Your task to perform on an android device: Clear the cart on costco.com. Add "logitech g910" to the cart on costco.com, then select checkout. Image 0: 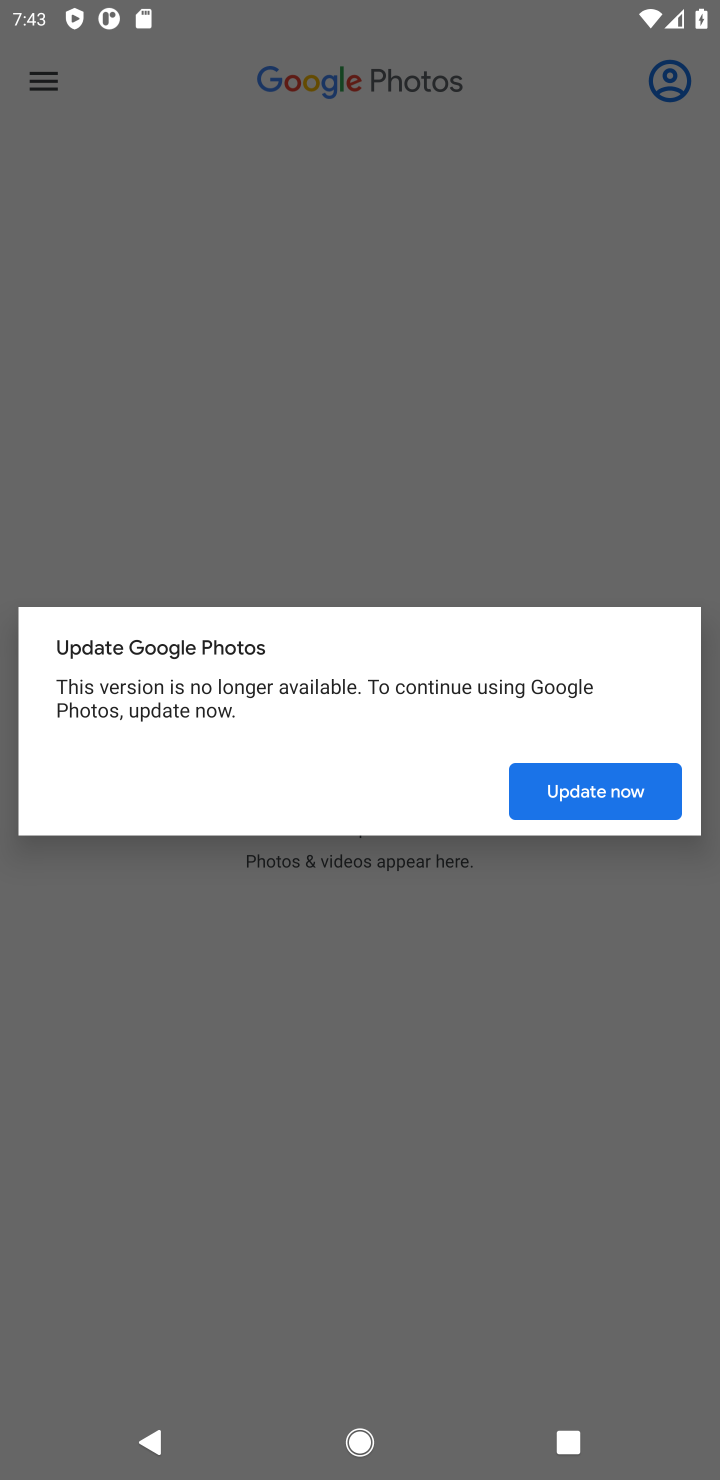
Step 0: press home button
Your task to perform on an android device: Clear the cart on costco.com. Add "logitech g910" to the cart on costco.com, then select checkout. Image 1: 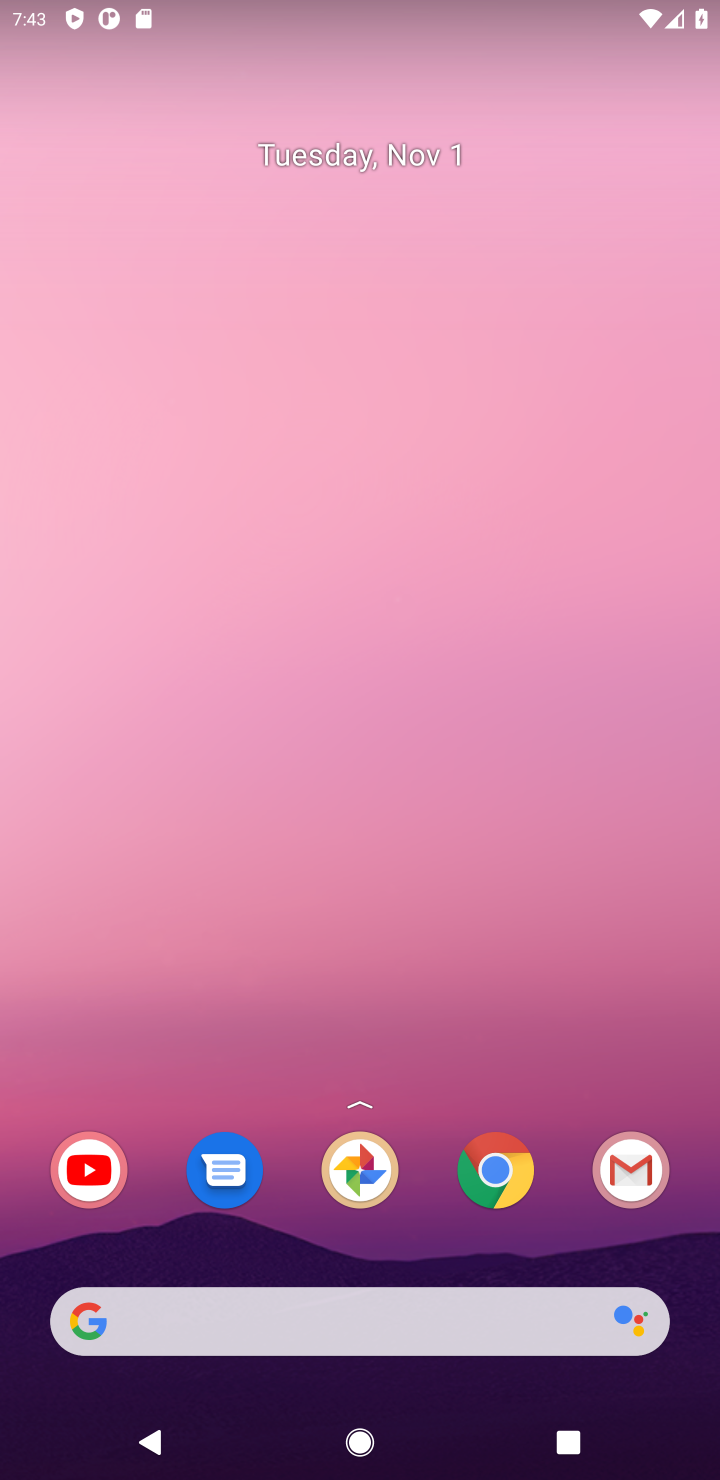
Step 1: click (509, 1174)
Your task to perform on an android device: Clear the cart on costco.com. Add "logitech g910" to the cart on costco.com, then select checkout. Image 2: 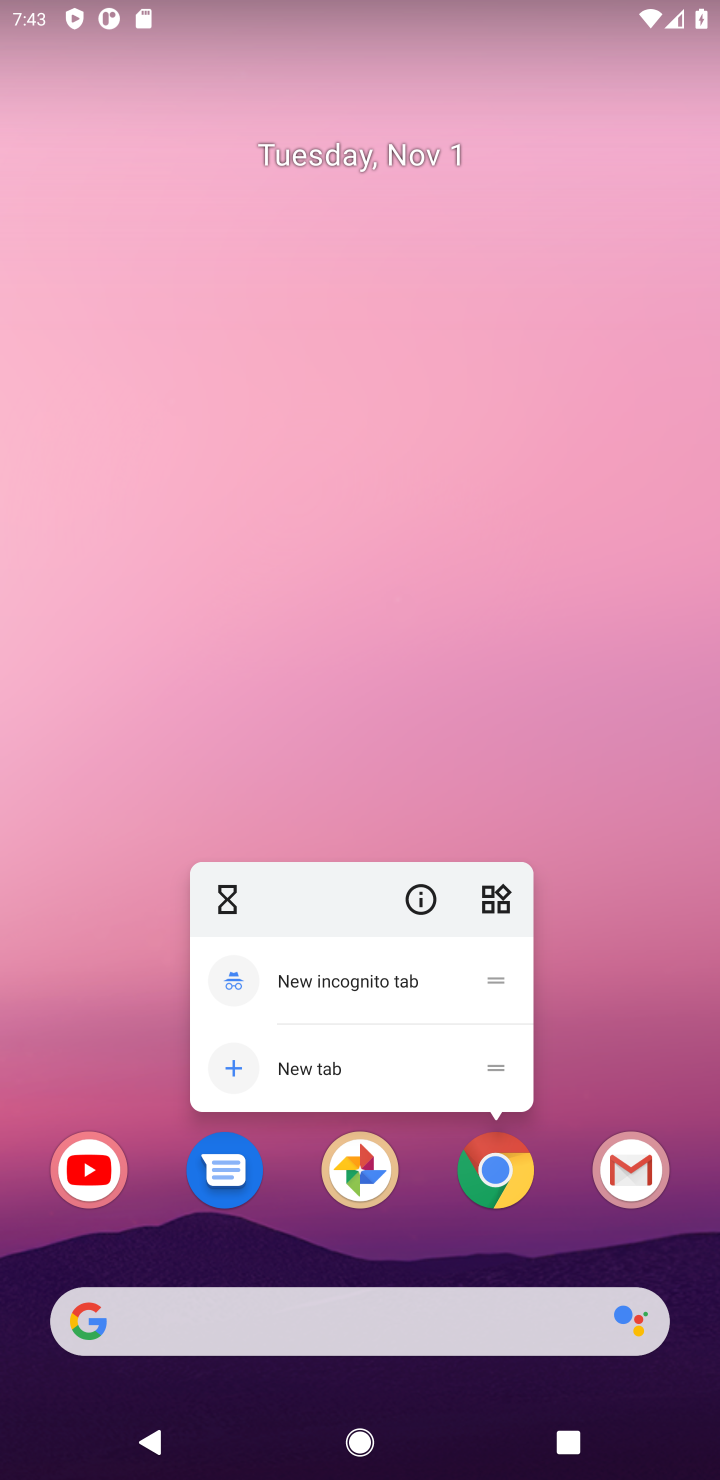
Step 2: click (490, 1191)
Your task to perform on an android device: Clear the cart on costco.com. Add "logitech g910" to the cart on costco.com, then select checkout. Image 3: 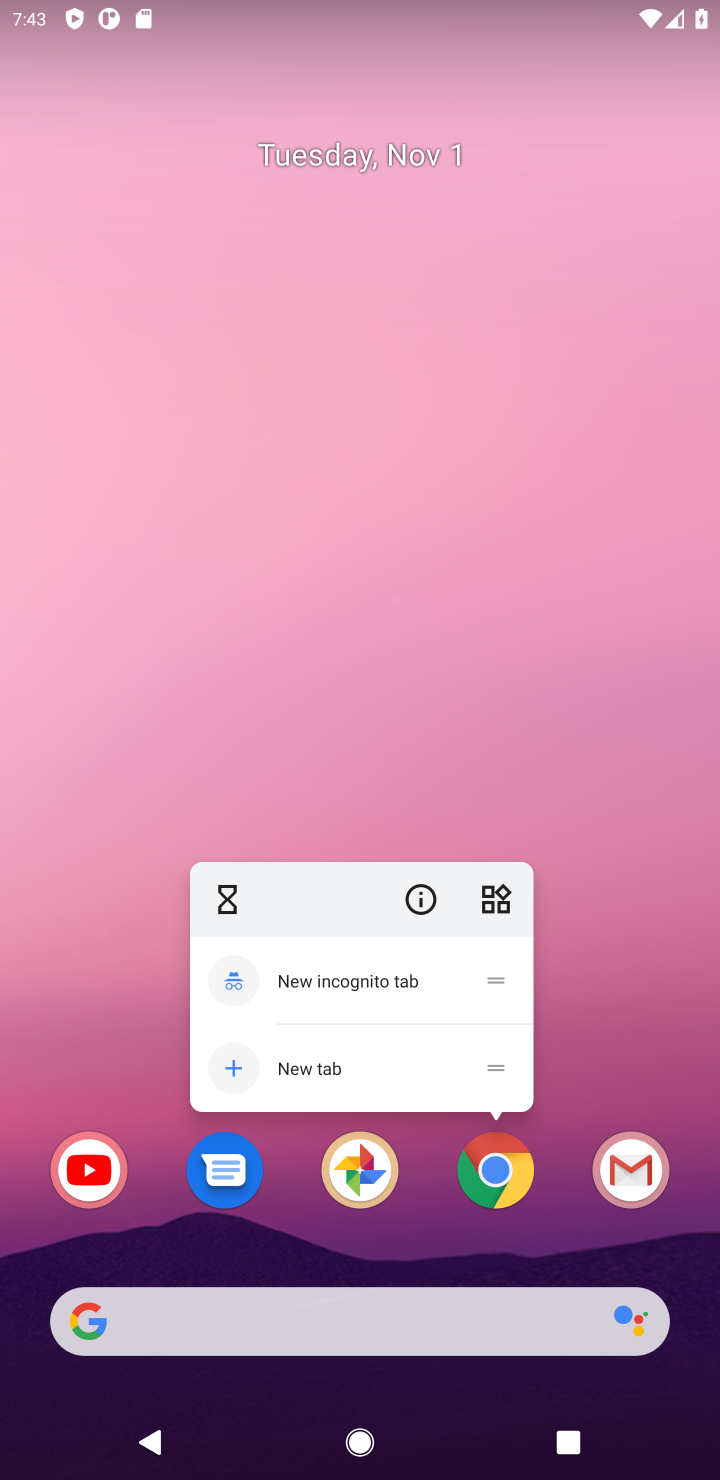
Step 3: click (509, 1178)
Your task to perform on an android device: Clear the cart on costco.com. Add "logitech g910" to the cart on costco.com, then select checkout. Image 4: 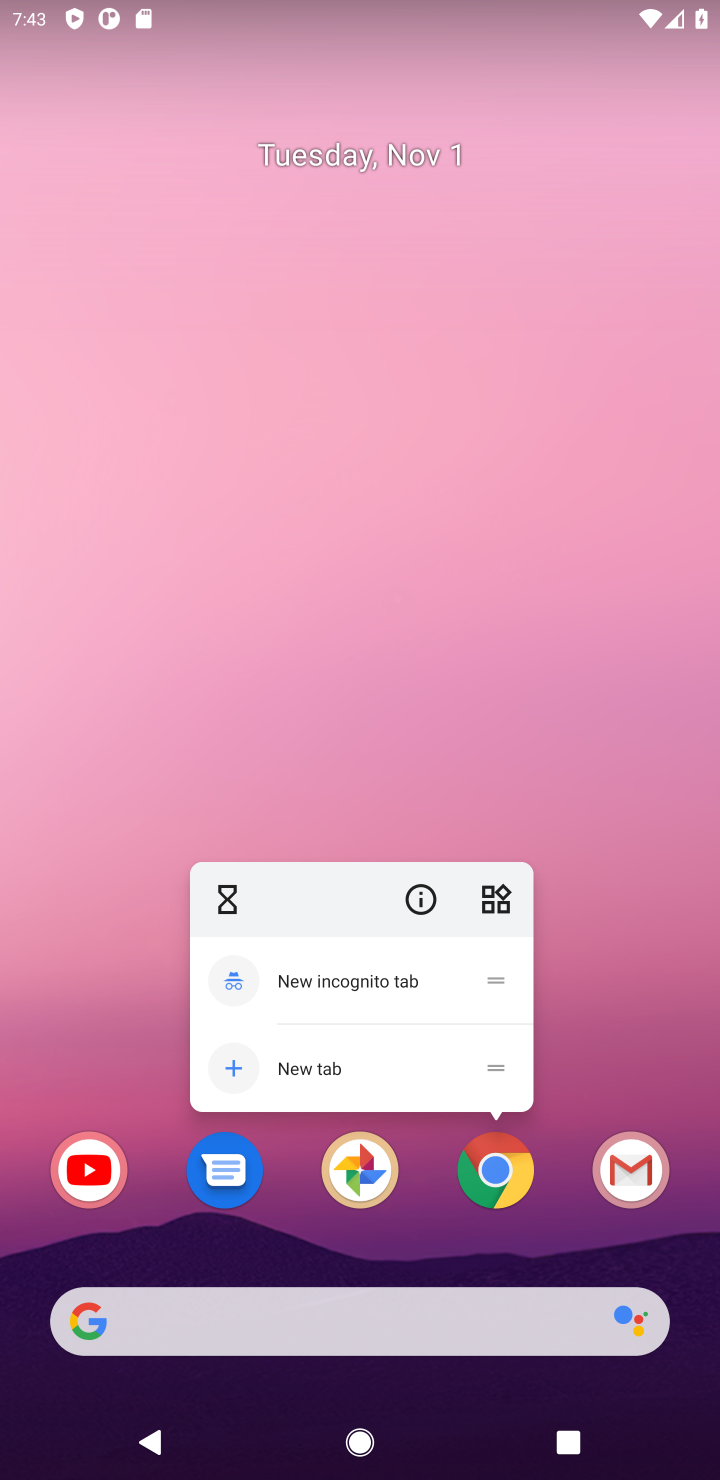
Step 4: click (513, 1155)
Your task to perform on an android device: Clear the cart on costco.com. Add "logitech g910" to the cart on costco.com, then select checkout. Image 5: 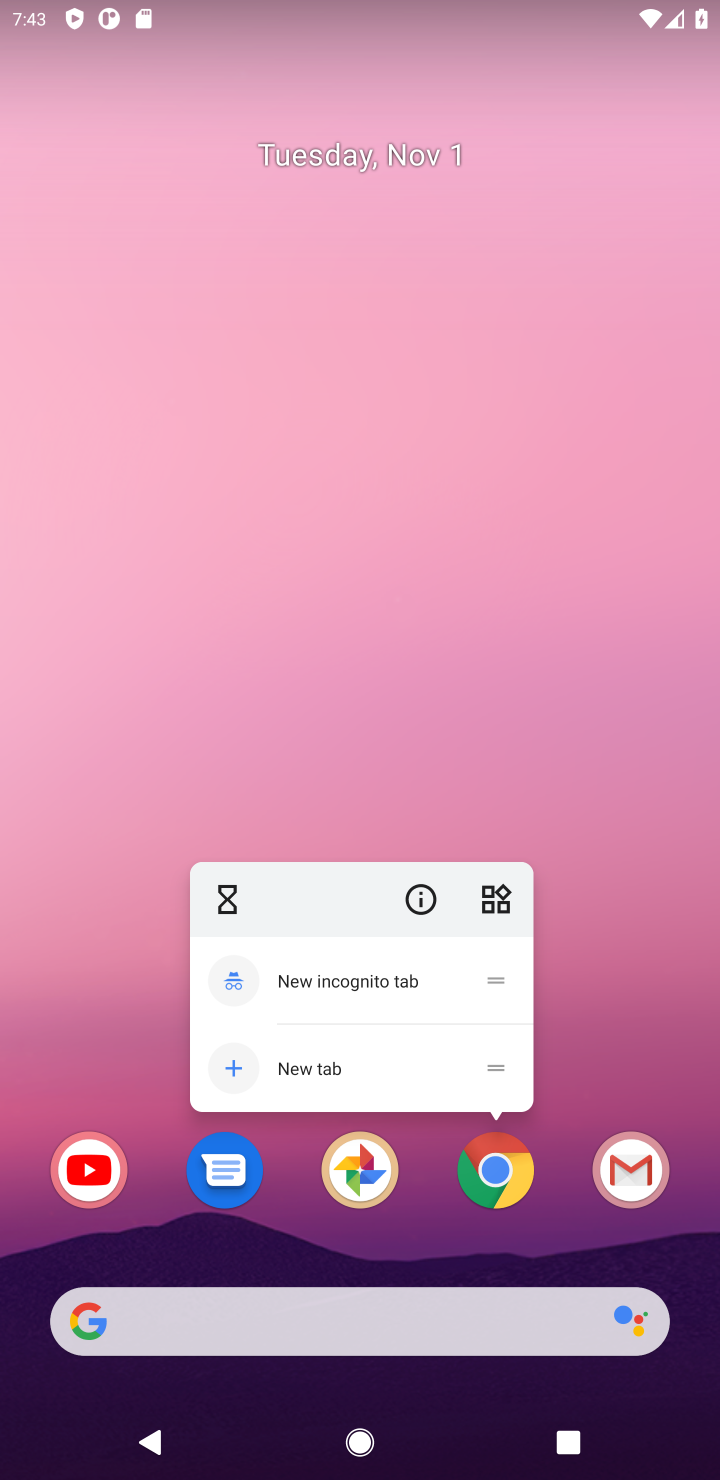
Step 5: click (503, 1207)
Your task to perform on an android device: Clear the cart on costco.com. Add "logitech g910" to the cart on costco.com, then select checkout. Image 6: 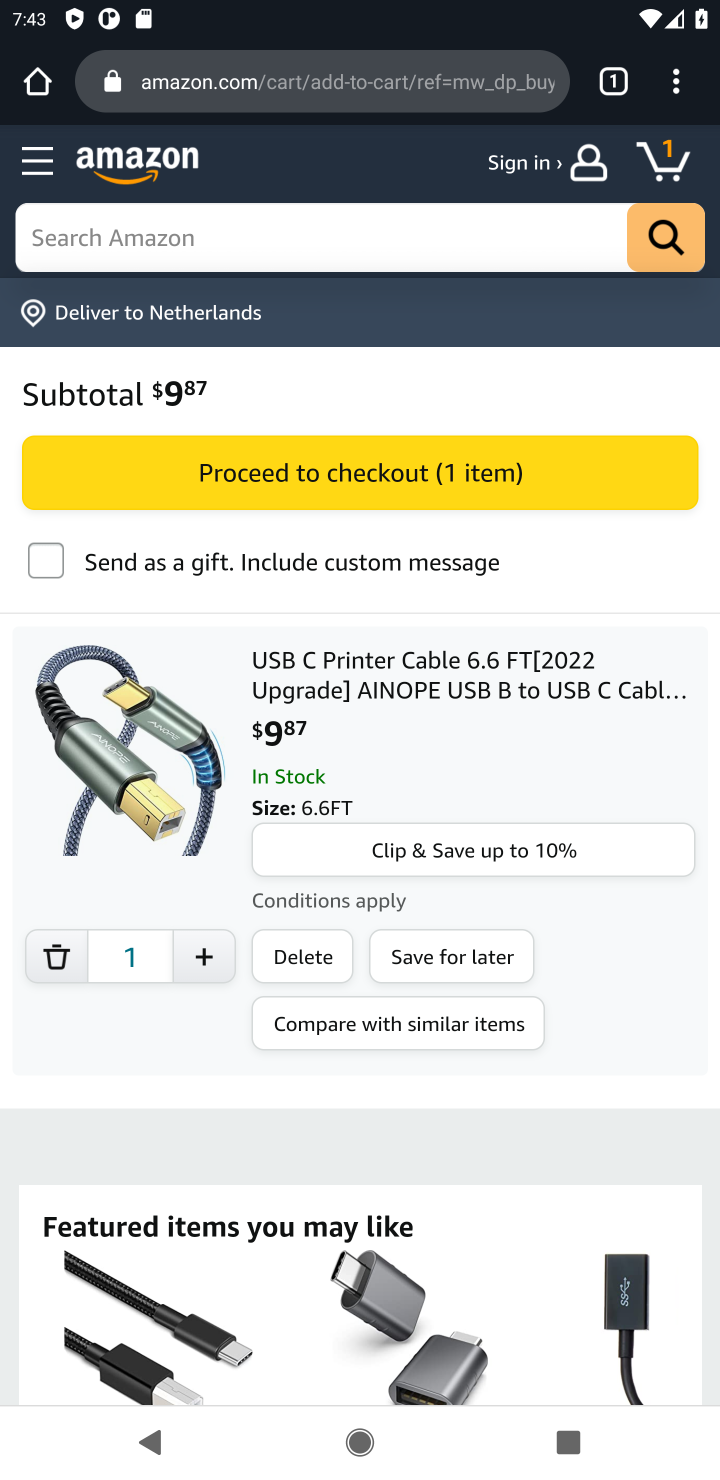
Step 6: click (452, 105)
Your task to perform on an android device: Clear the cart on costco.com. Add "logitech g910" to the cart on costco.com, then select checkout. Image 7: 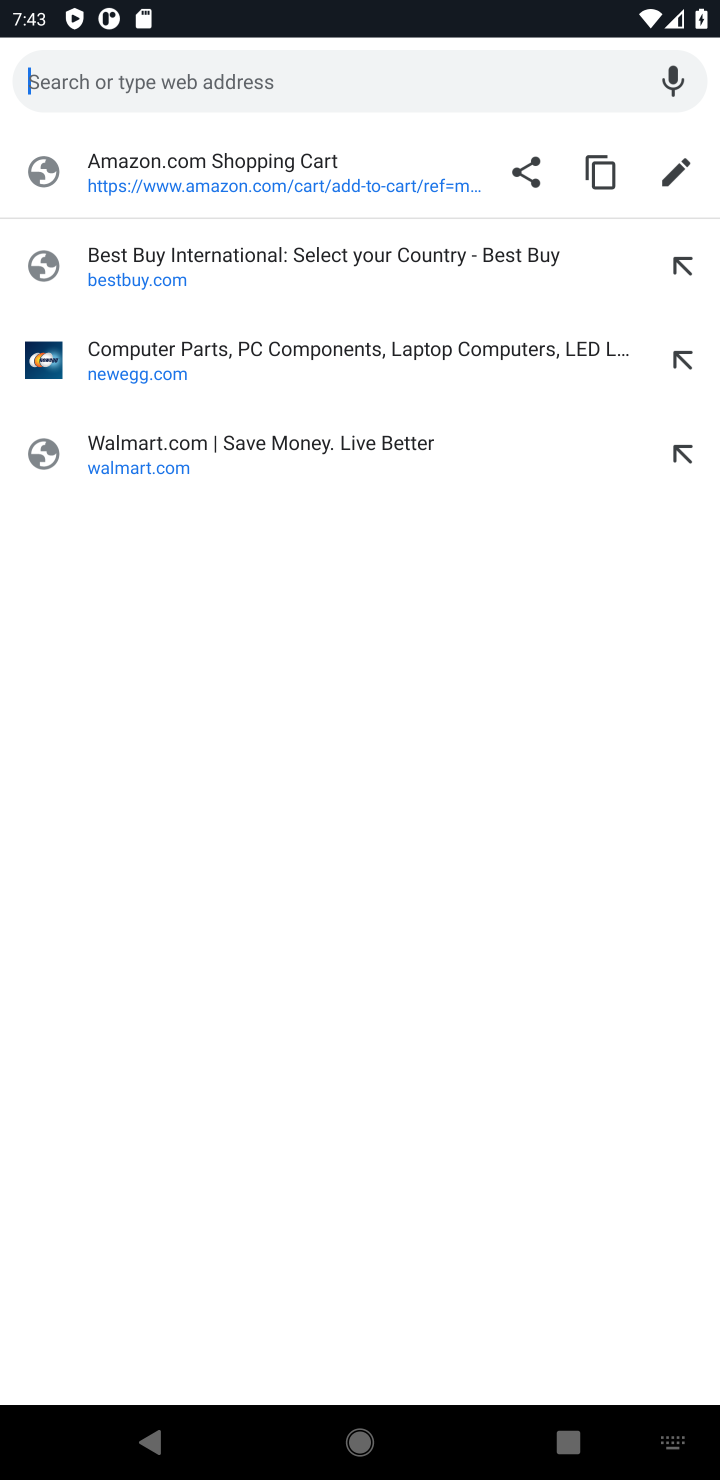
Step 7: type "costco.com"
Your task to perform on an android device: Clear the cart on costco.com. Add "logitech g910" to the cart on costco.com, then select checkout. Image 8: 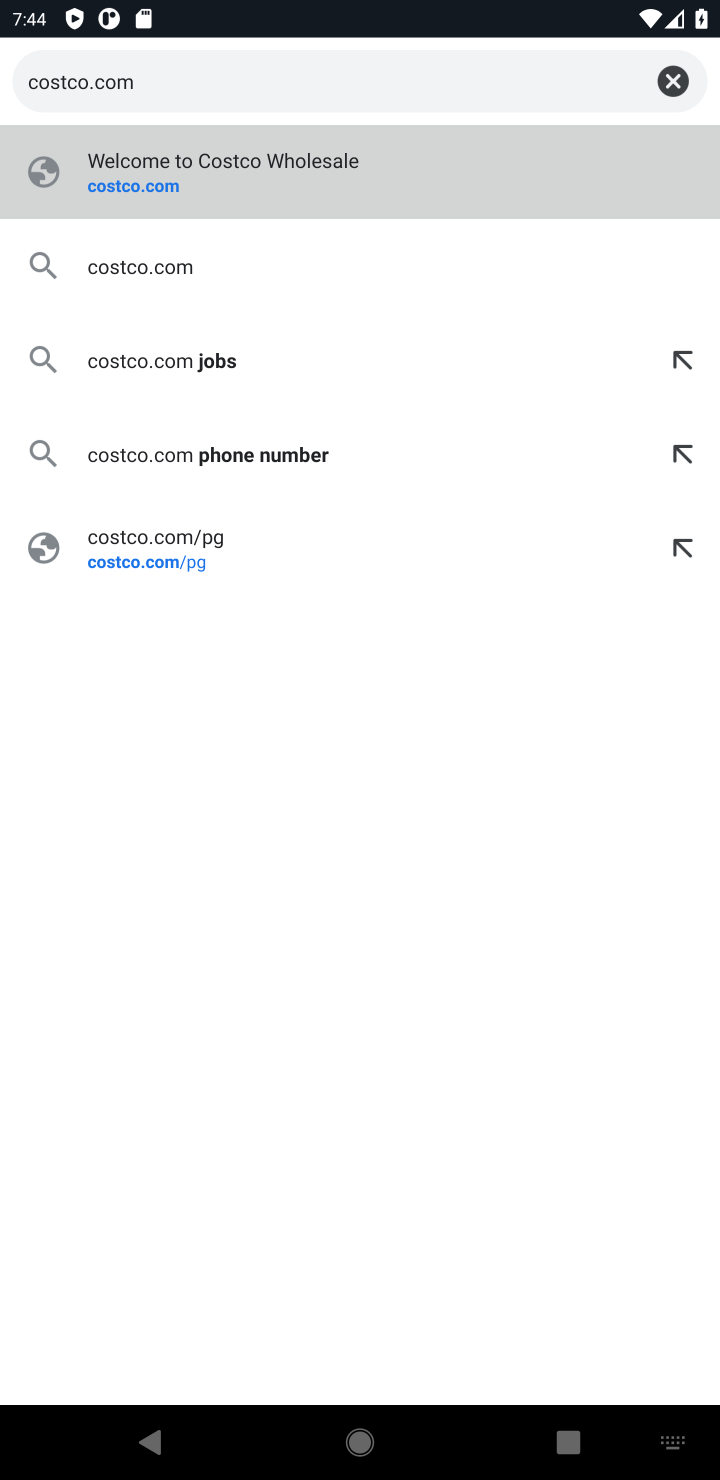
Step 8: press enter
Your task to perform on an android device: Clear the cart on costco.com. Add "logitech g910" to the cart on costco.com, then select checkout. Image 9: 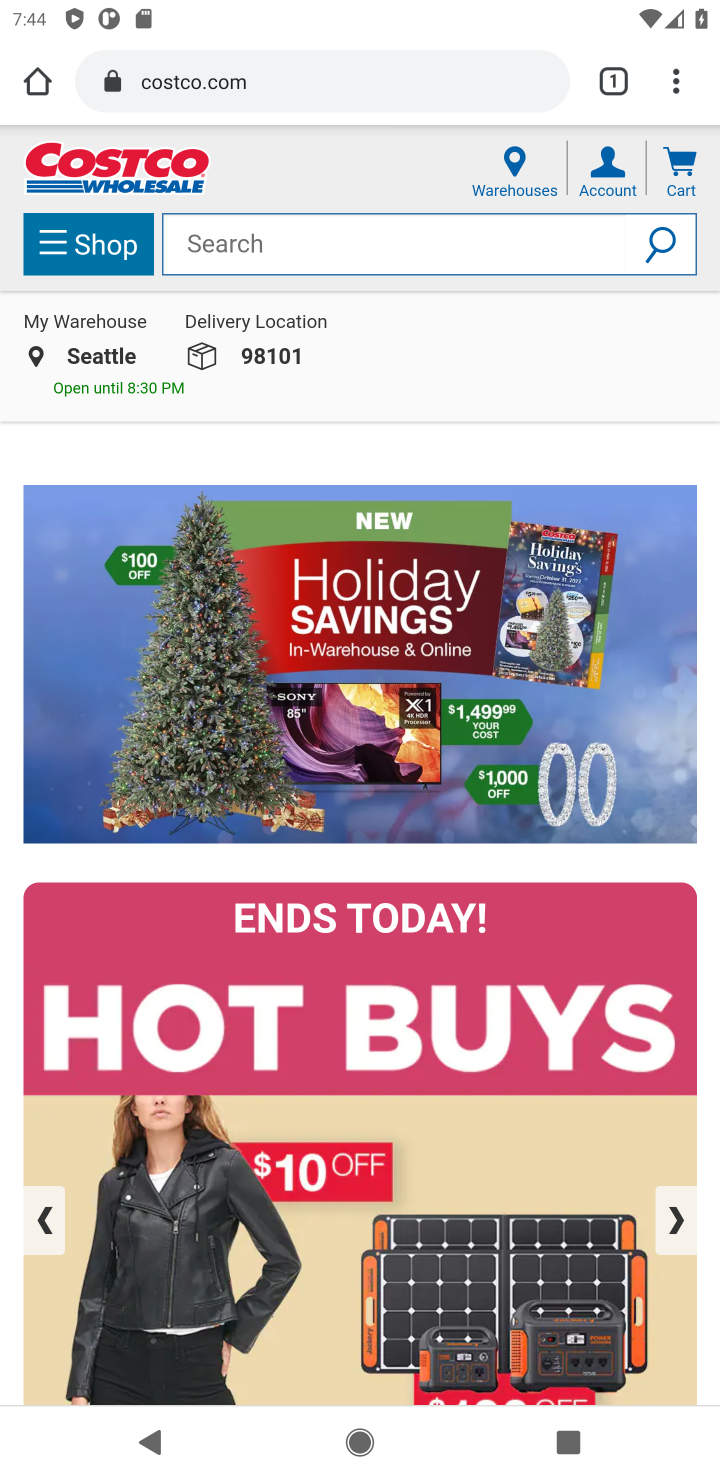
Step 9: click (662, 172)
Your task to perform on an android device: Clear the cart on costco.com. Add "logitech g910" to the cart on costco.com, then select checkout. Image 10: 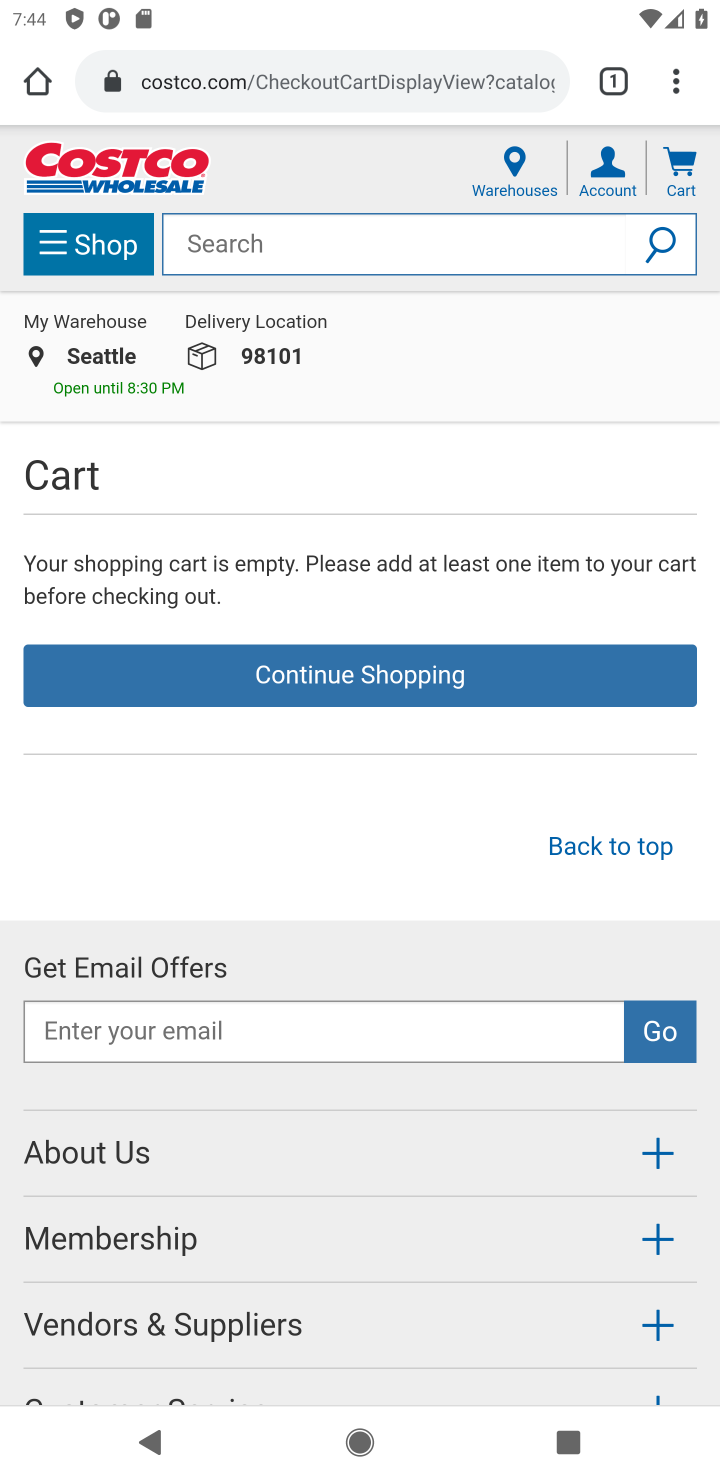
Step 10: click (286, 243)
Your task to perform on an android device: Clear the cart on costco.com. Add "logitech g910" to the cart on costco.com, then select checkout. Image 11: 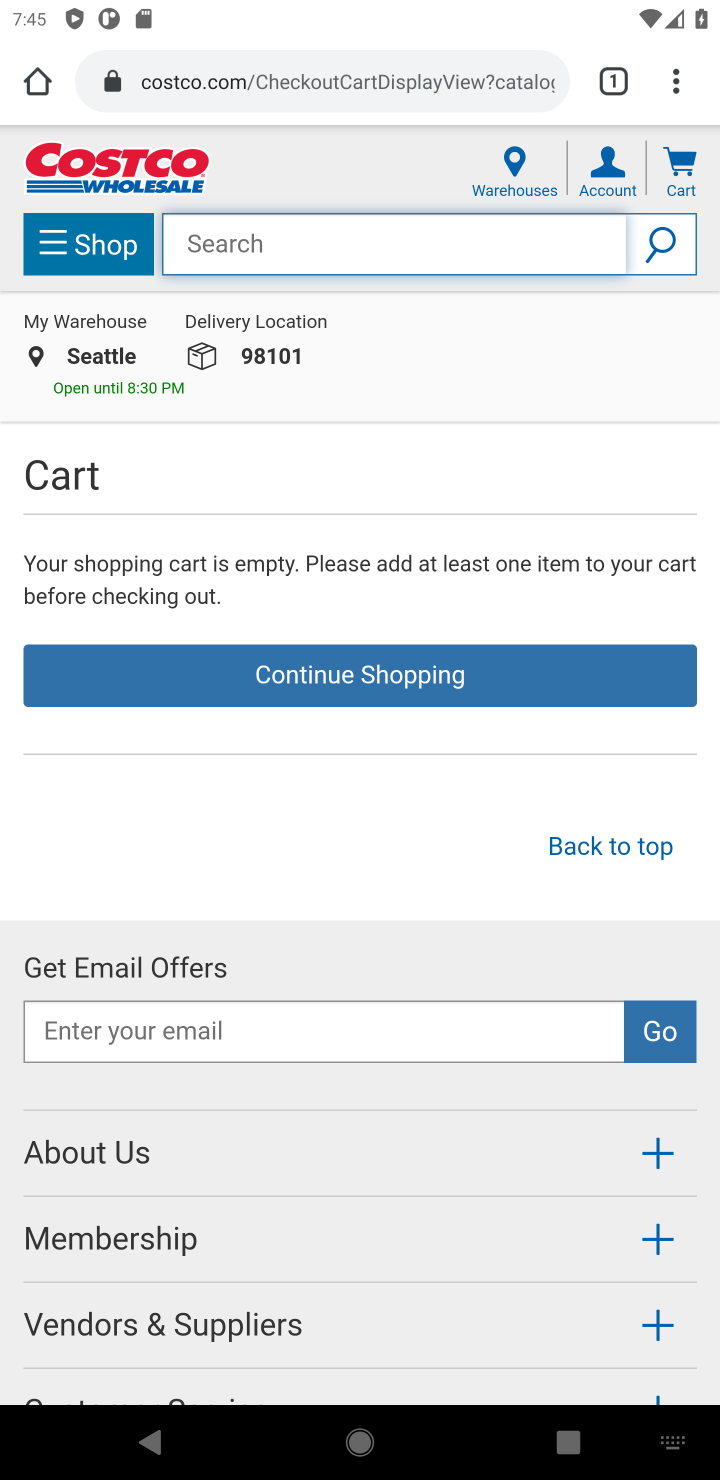
Step 11: type "logitech g910"
Your task to perform on an android device: Clear the cart on costco.com. Add "logitech g910" to the cart on costco.com, then select checkout. Image 12: 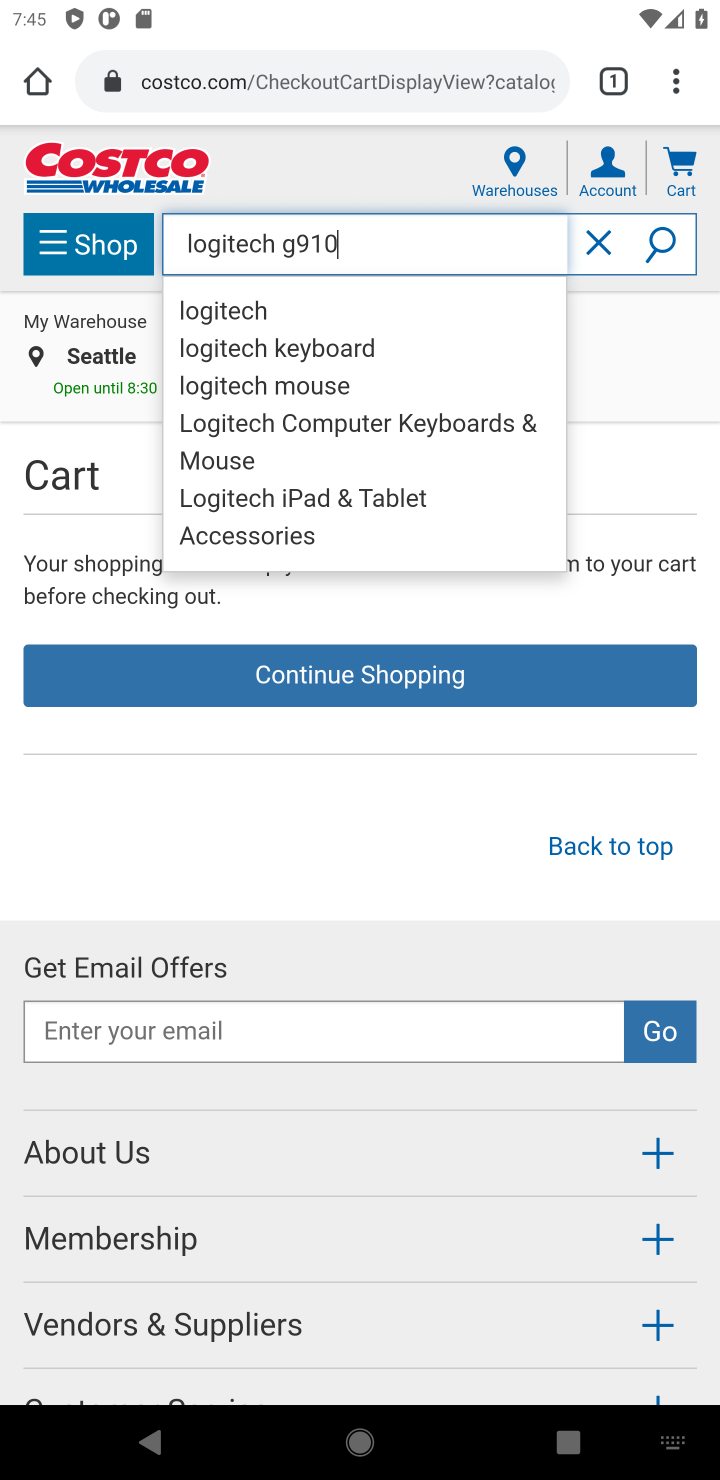
Step 12: press enter
Your task to perform on an android device: Clear the cart on costco.com. Add "logitech g910" to the cart on costco.com, then select checkout. Image 13: 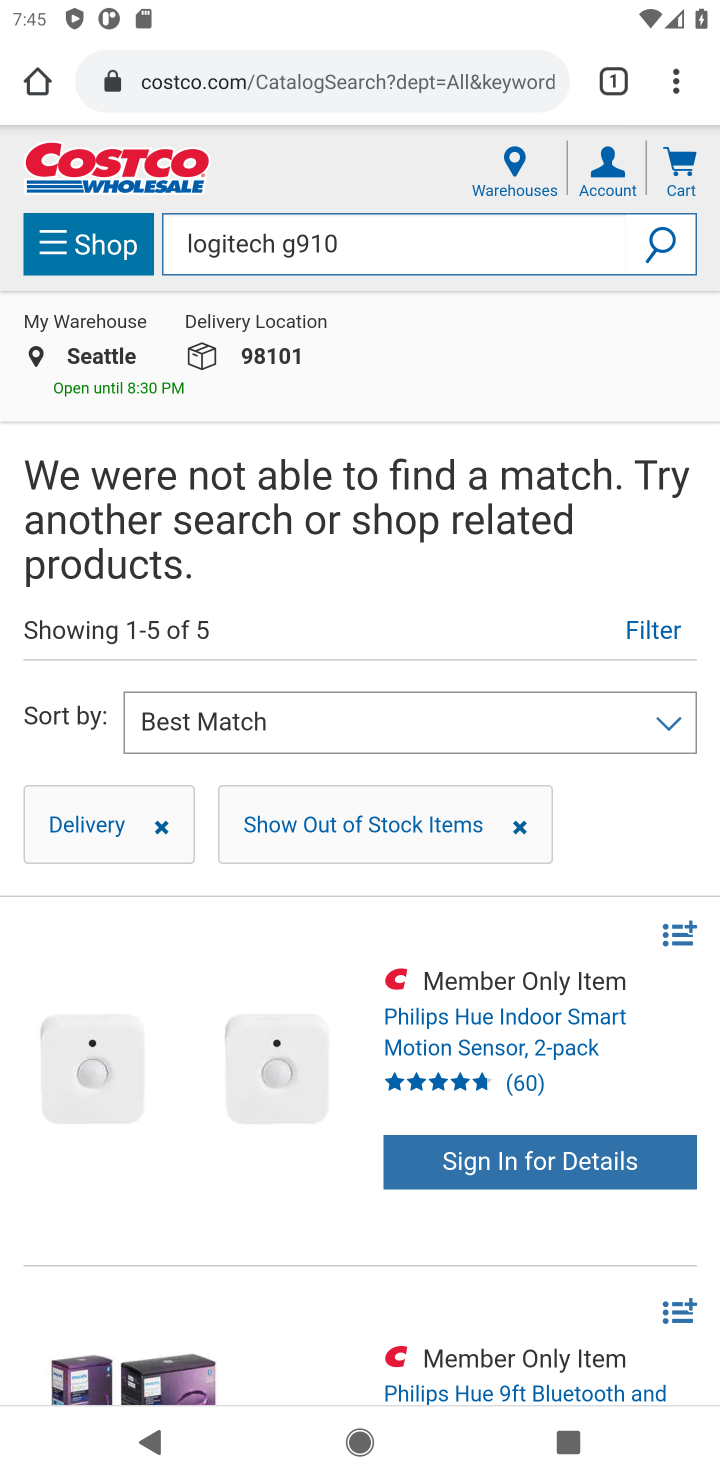
Step 13: press enter
Your task to perform on an android device: Clear the cart on costco.com. Add "logitech g910" to the cart on costco.com, then select checkout. Image 14: 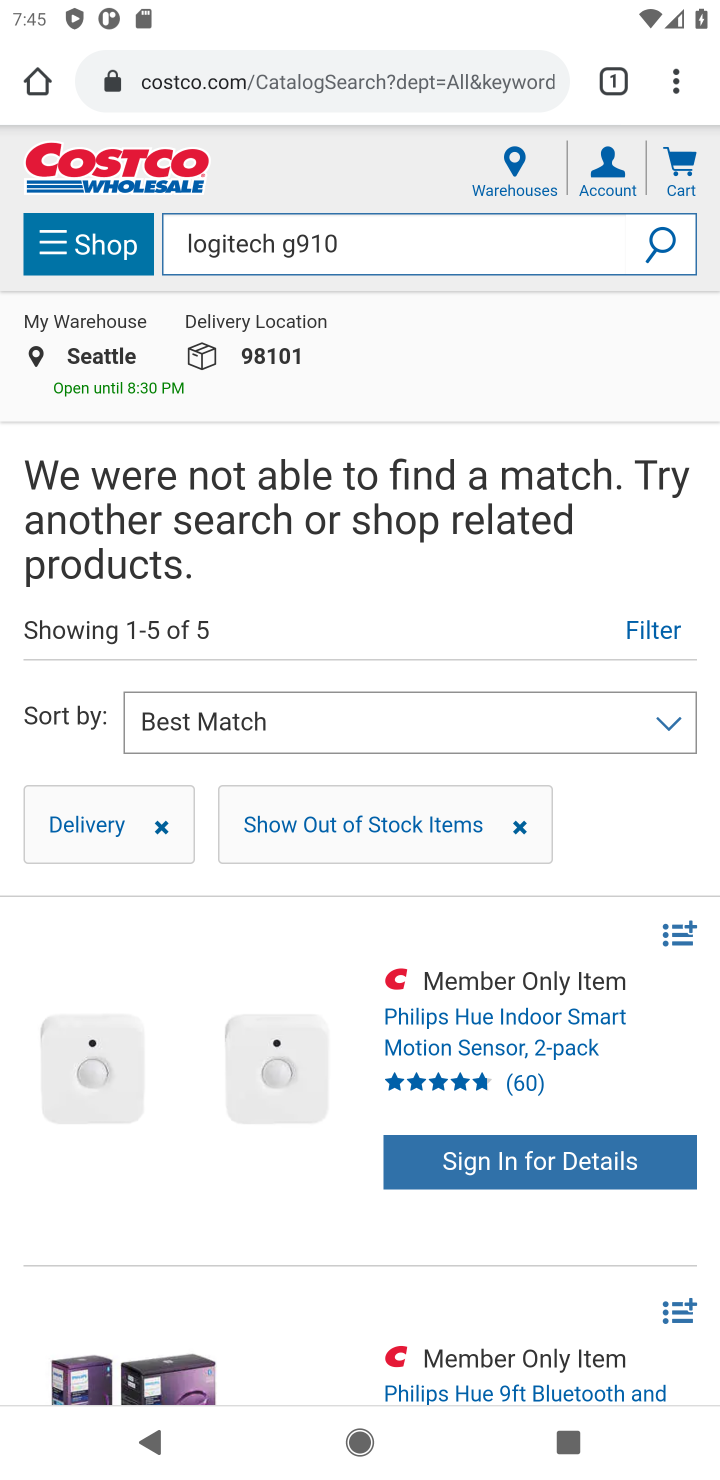
Step 14: press enter
Your task to perform on an android device: Clear the cart on costco.com. Add "logitech g910" to the cart on costco.com, then select checkout. Image 15: 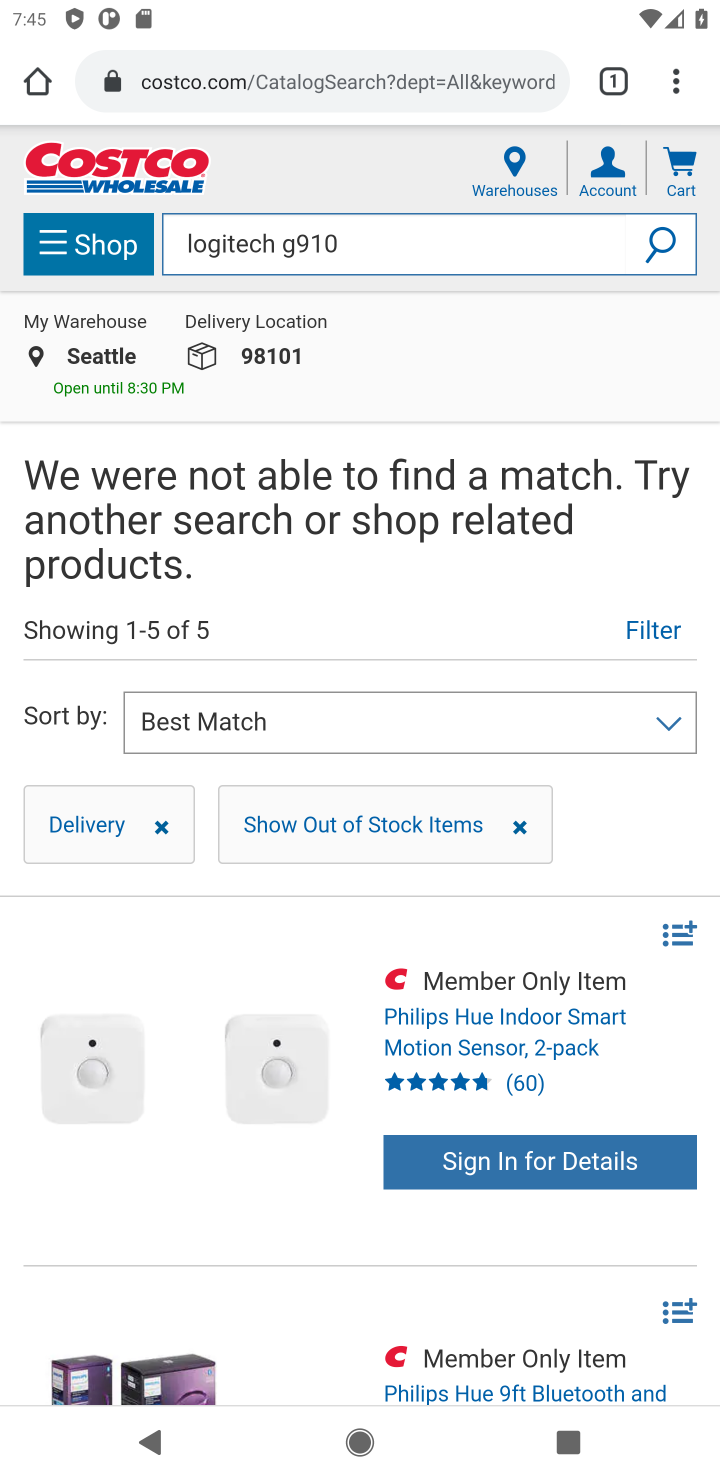
Step 15: task complete